Your task to perform on an android device: Show me the alarms in the clock app Image 0: 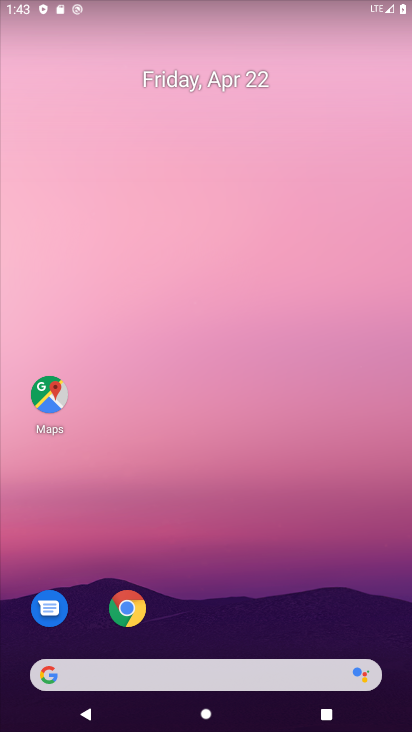
Step 0: drag from (231, 692) to (396, 4)
Your task to perform on an android device: Show me the alarms in the clock app Image 1: 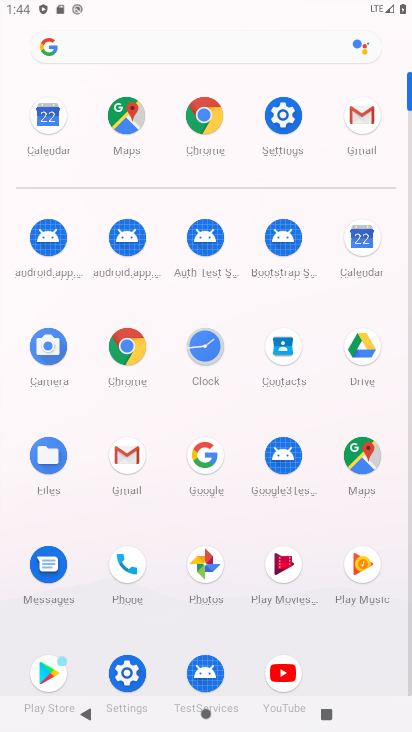
Step 1: click (209, 352)
Your task to perform on an android device: Show me the alarms in the clock app Image 2: 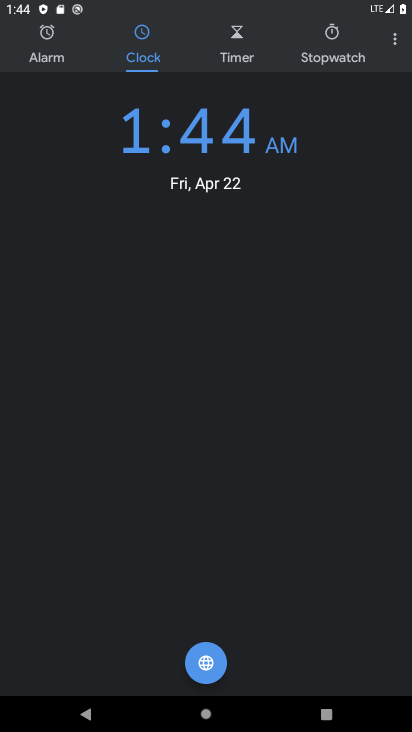
Step 2: click (67, 47)
Your task to perform on an android device: Show me the alarms in the clock app Image 3: 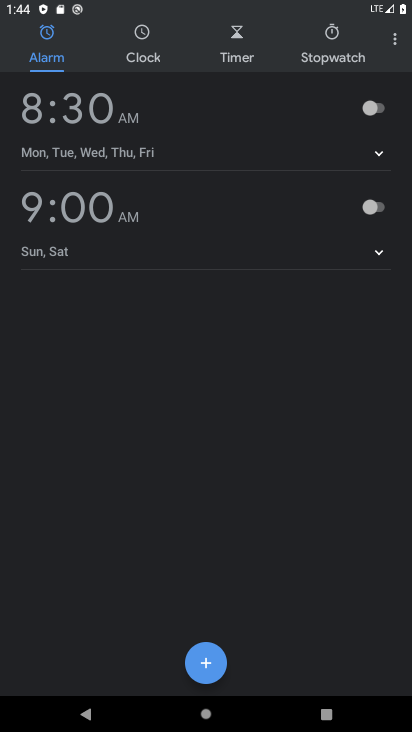
Step 3: task complete